Your task to perform on an android device: snooze an email in the gmail app Image 0: 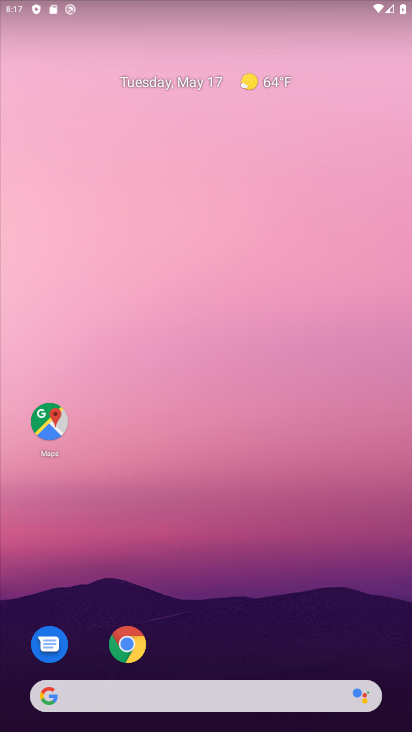
Step 0: drag from (242, 572) to (351, 134)
Your task to perform on an android device: snooze an email in the gmail app Image 1: 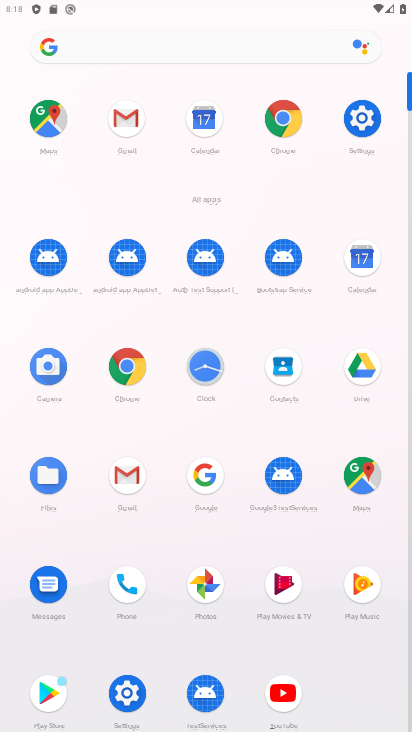
Step 1: click (133, 120)
Your task to perform on an android device: snooze an email in the gmail app Image 2: 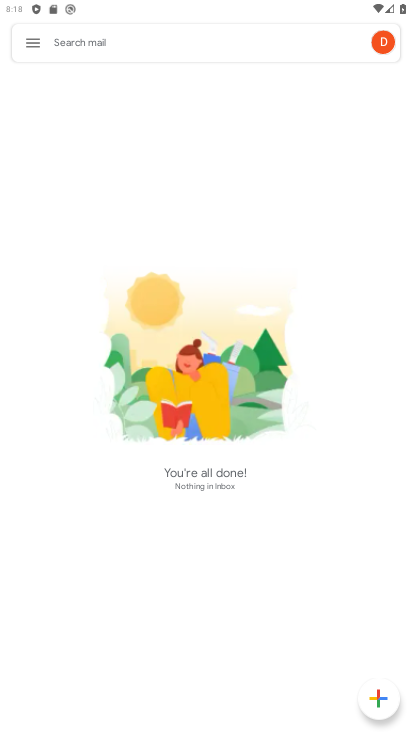
Step 2: click (26, 35)
Your task to perform on an android device: snooze an email in the gmail app Image 3: 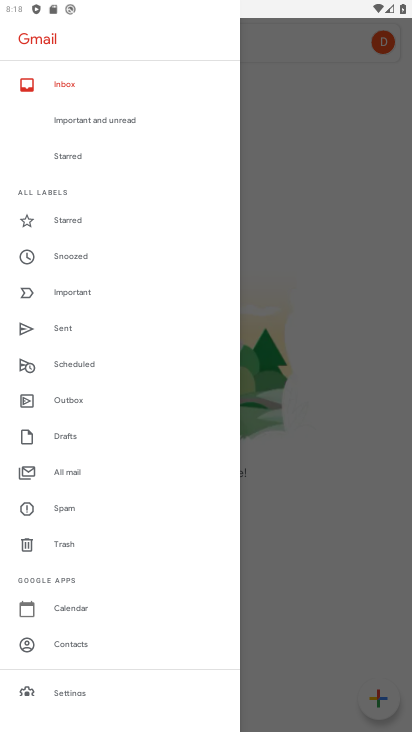
Step 3: click (72, 255)
Your task to perform on an android device: snooze an email in the gmail app Image 4: 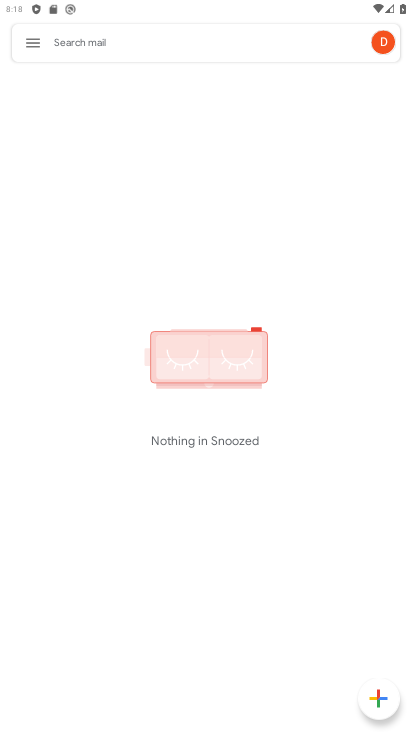
Step 4: task complete